Your task to perform on an android device: Go to sound settings Image 0: 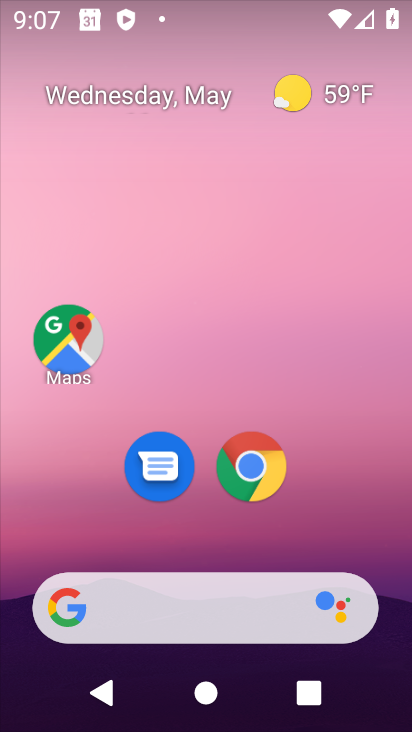
Step 0: drag from (351, 531) to (353, 129)
Your task to perform on an android device: Go to sound settings Image 1: 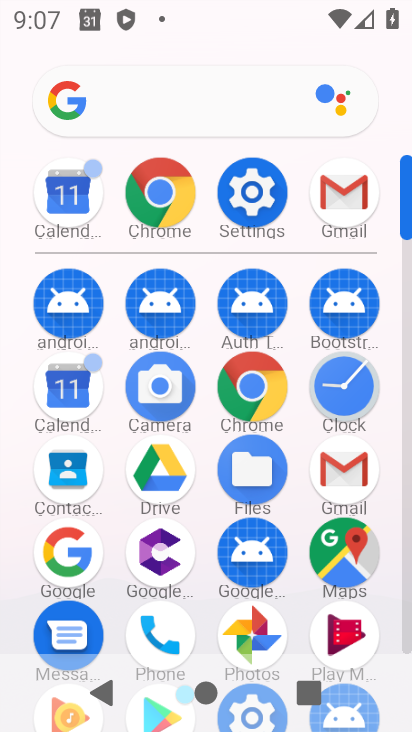
Step 1: click (228, 202)
Your task to perform on an android device: Go to sound settings Image 2: 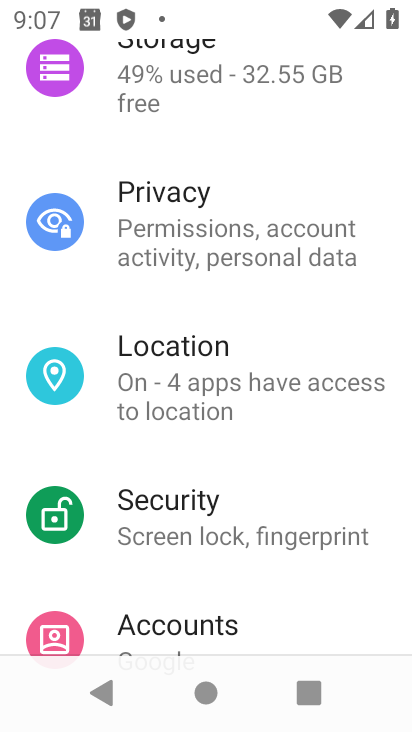
Step 2: drag from (197, 571) to (266, 175)
Your task to perform on an android device: Go to sound settings Image 3: 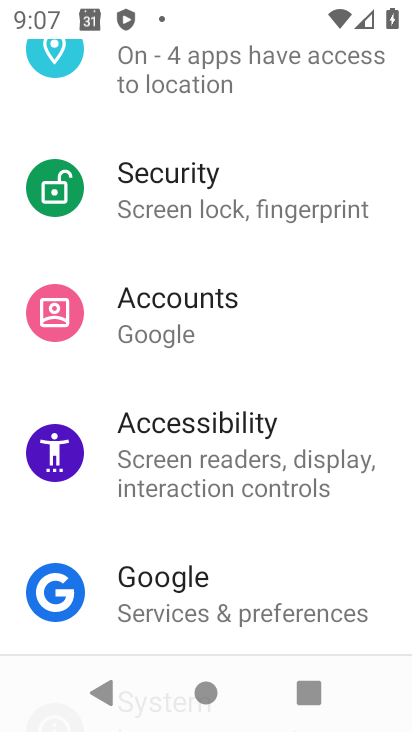
Step 3: drag from (247, 151) to (238, 646)
Your task to perform on an android device: Go to sound settings Image 4: 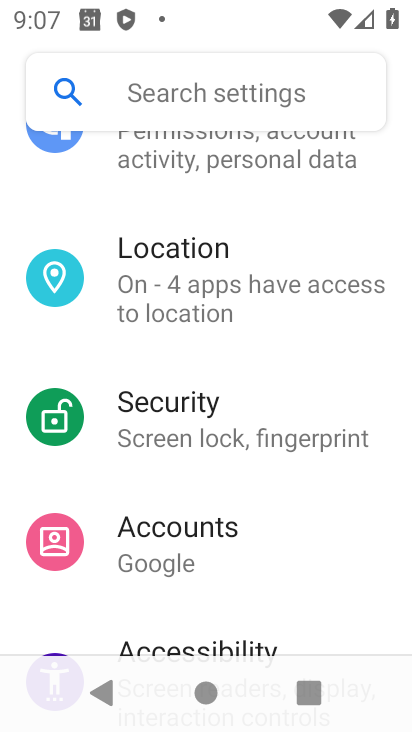
Step 4: drag from (246, 200) to (270, 608)
Your task to perform on an android device: Go to sound settings Image 5: 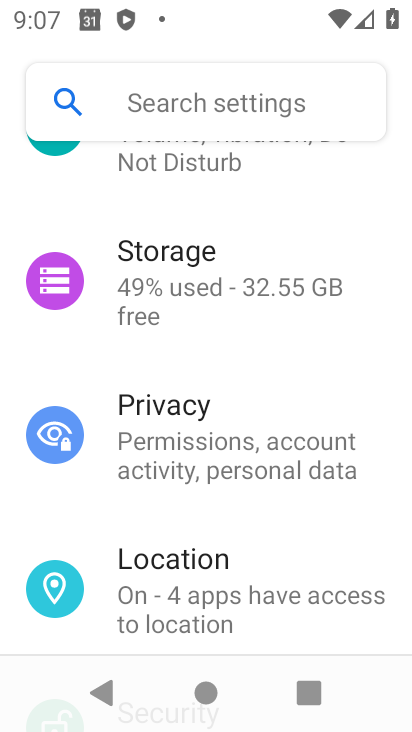
Step 5: drag from (229, 227) to (266, 576)
Your task to perform on an android device: Go to sound settings Image 6: 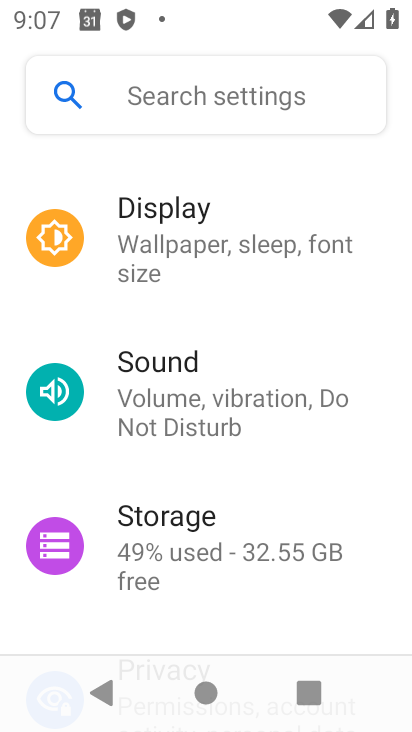
Step 6: click (198, 394)
Your task to perform on an android device: Go to sound settings Image 7: 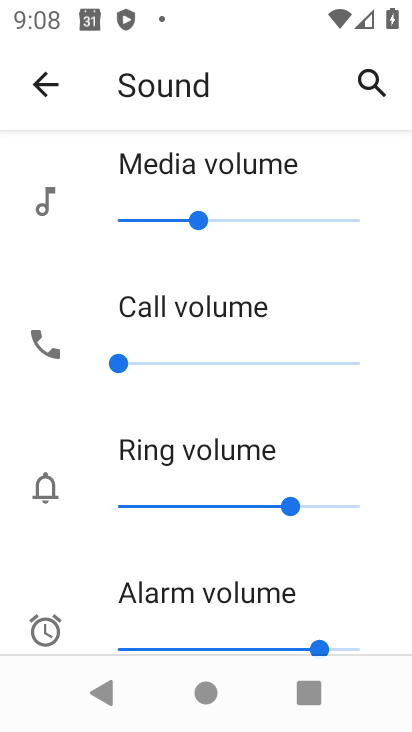
Step 7: task complete